Your task to perform on an android device: When is my next appointment? Image 0: 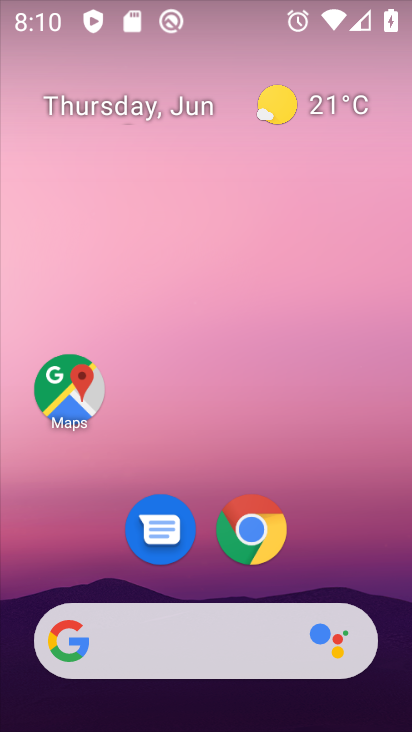
Step 0: drag from (388, 639) to (393, 88)
Your task to perform on an android device: When is my next appointment? Image 1: 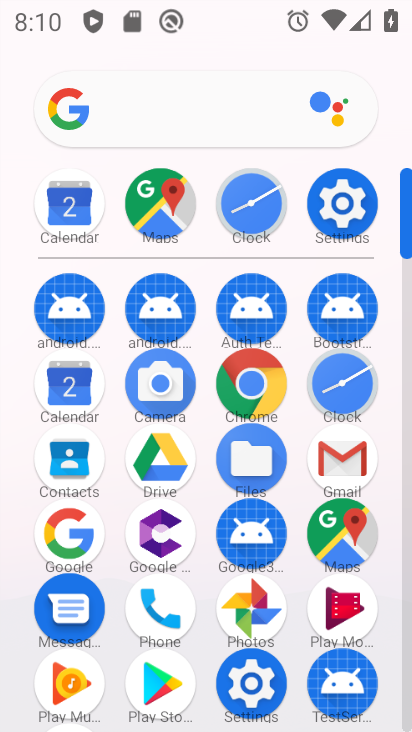
Step 1: click (58, 385)
Your task to perform on an android device: When is my next appointment? Image 2: 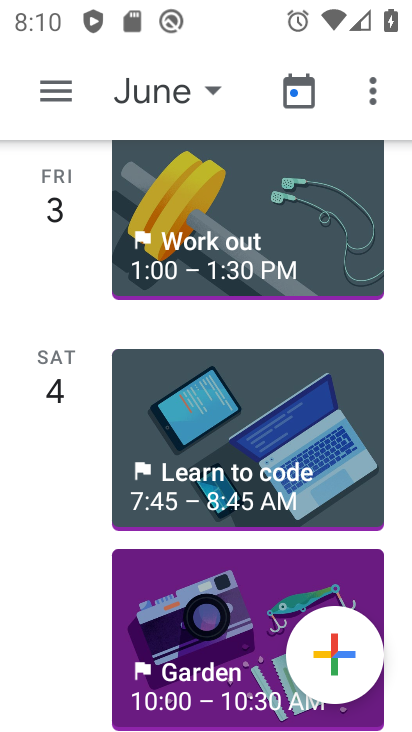
Step 2: click (51, 80)
Your task to perform on an android device: When is my next appointment? Image 3: 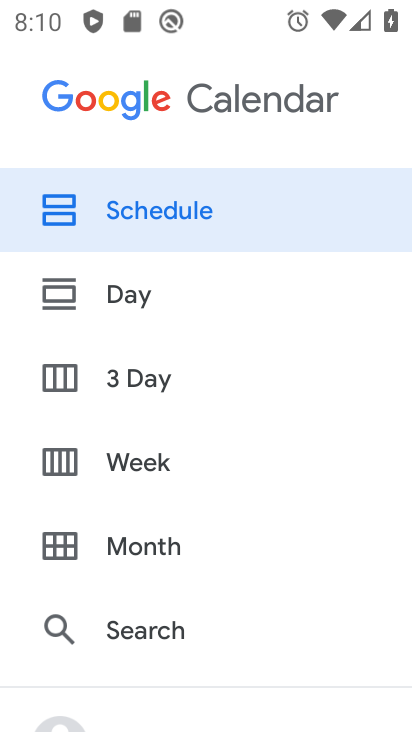
Step 3: click (136, 209)
Your task to perform on an android device: When is my next appointment? Image 4: 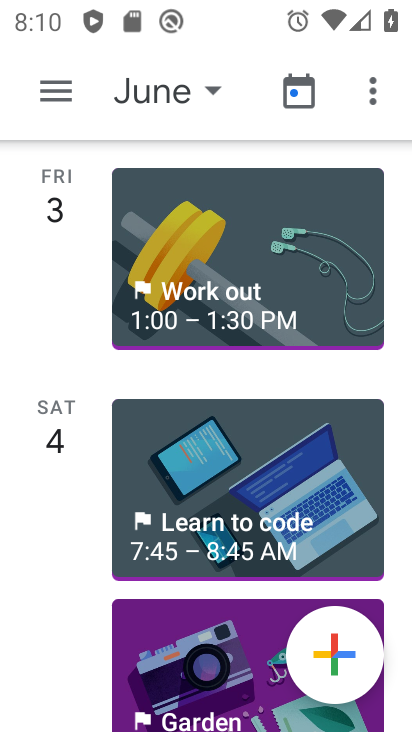
Step 4: task complete